Your task to perform on an android device: turn off location Image 0: 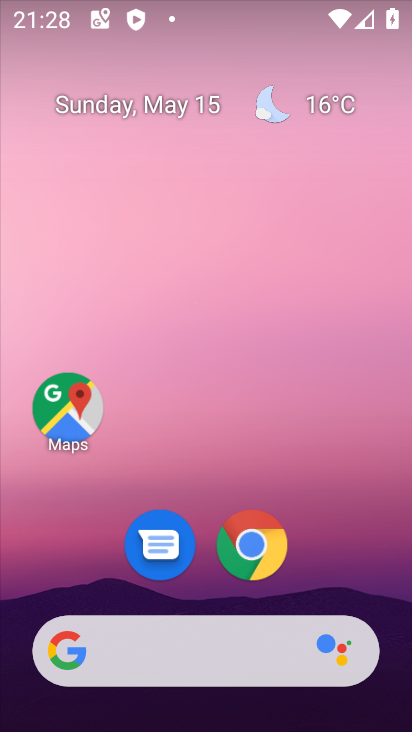
Step 0: drag from (331, 571) to (207, 166)
Your task to perform on an android device: turn off location Image 1: 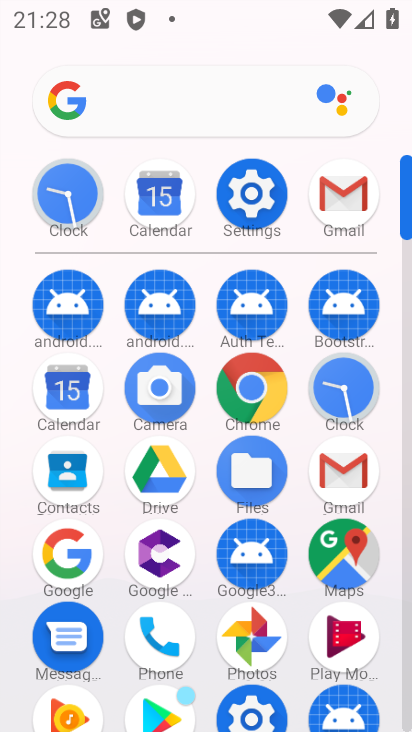
Step 1: click (251, 192)
Your task to perform on an android device: turn off location Image 2: 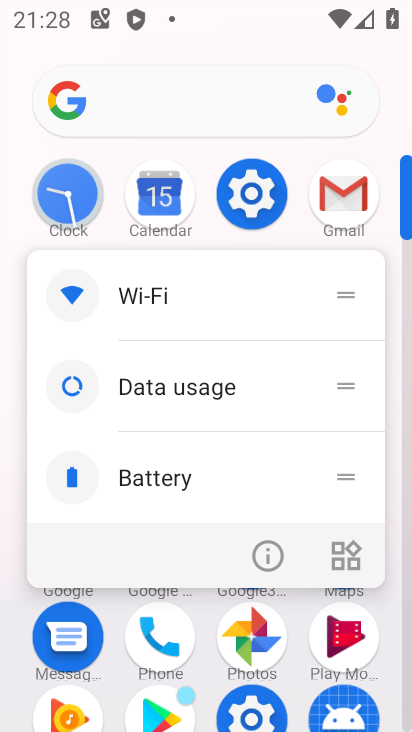
Step 2: click (251, 191)
Your task to perform on an android device: turn off location Image 3: 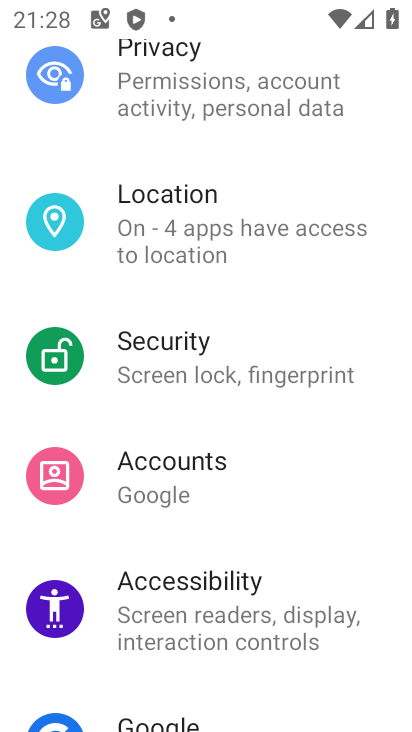
Step 3: click (190, 199)
Your task to perform on an android device: turn off location Image 4: 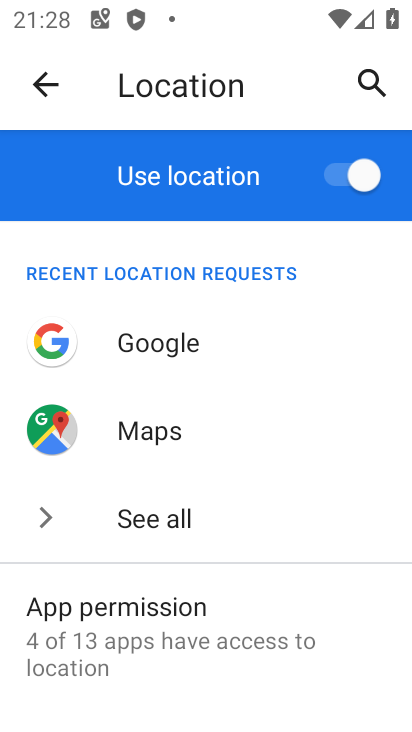
Step 4: click (356, 184)
Your task to perform on an android device: turn off location Image 5: 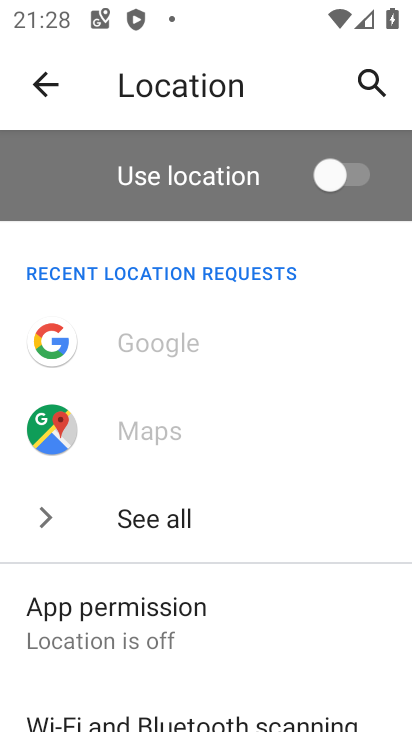
Step 5: task complete